Your task to perform on an android device: Clear the cart on newegg.com. Add razer blade to the cart on newegg.com Image 0: 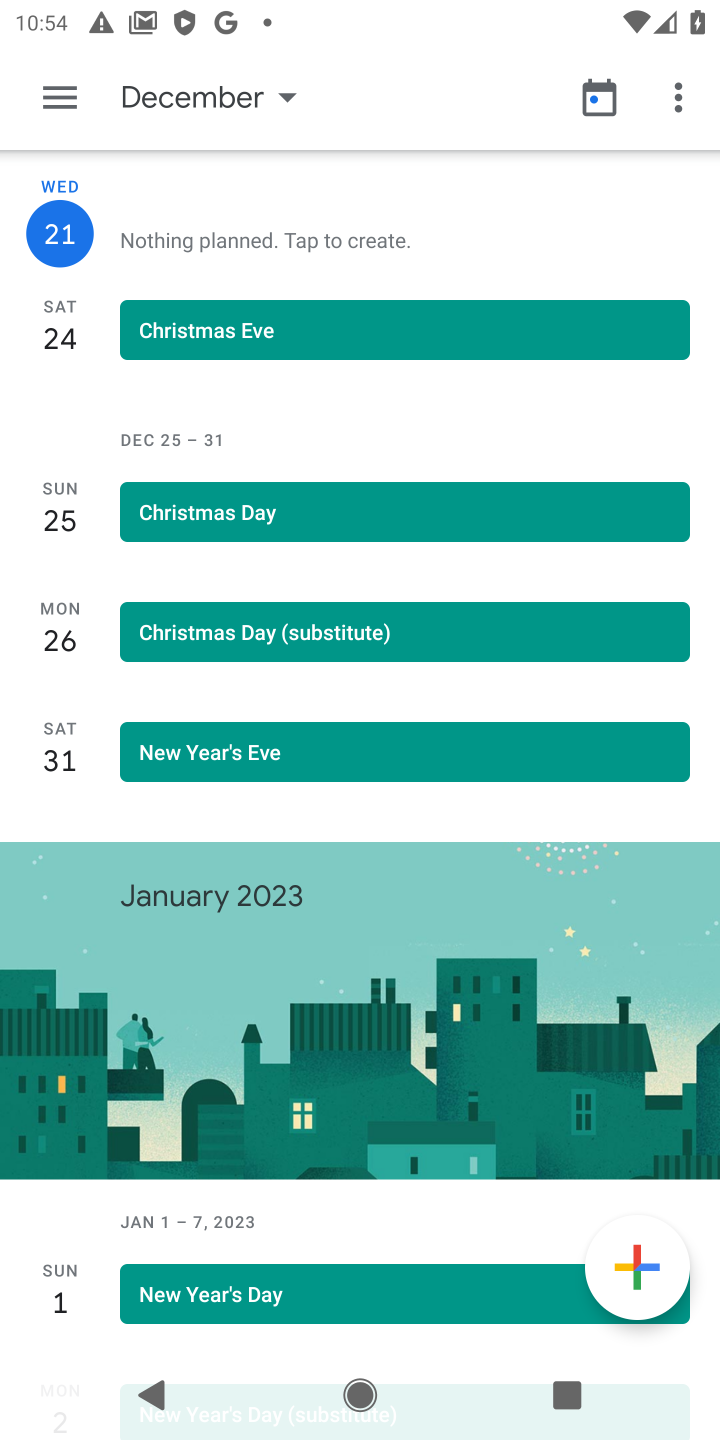
Step 0: press home button
Your task to perform on an android device: Clear the cart on newegg.com. Add razer blade to the cart on newegg.com Image 1: 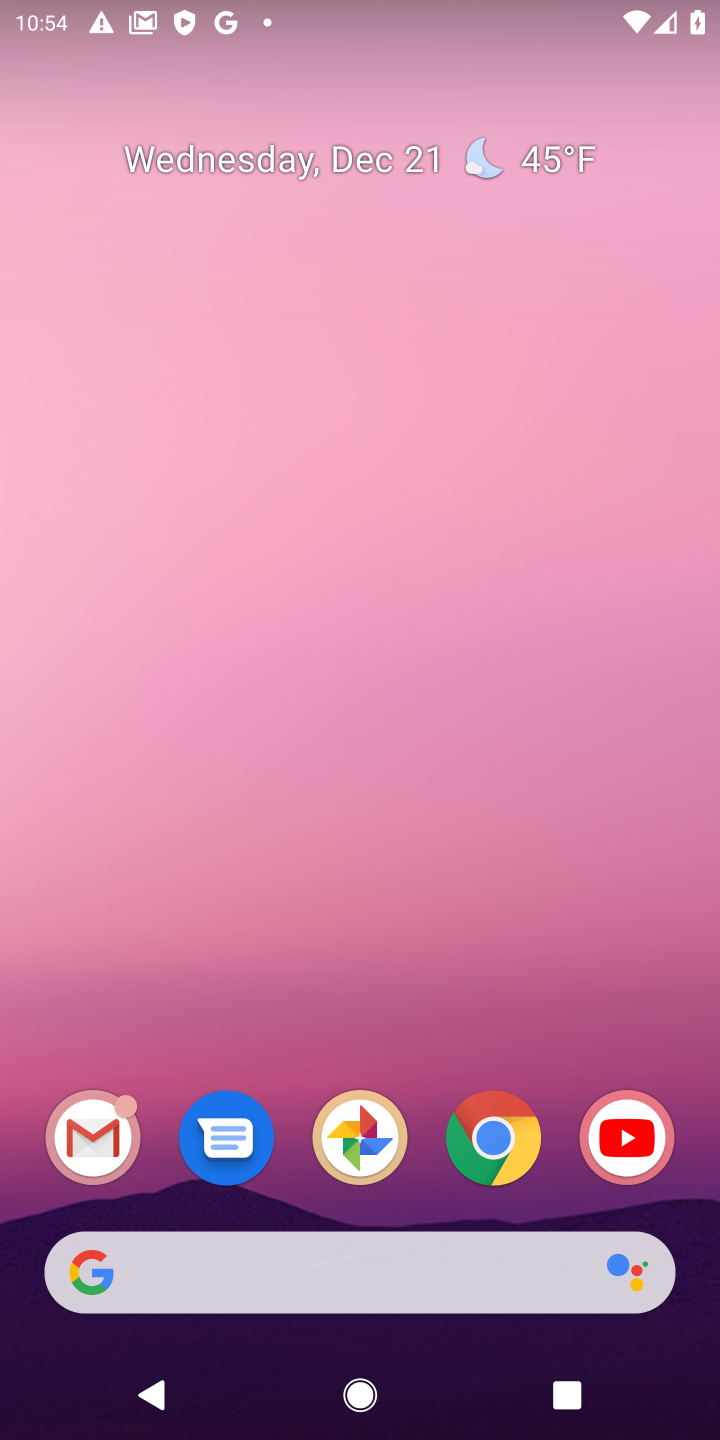
Step 1: click (496, 1151)
Your task to perform on an android device: Clear the cart on newegg.com. Add razer blade to the cart on newegg.com Image 2: 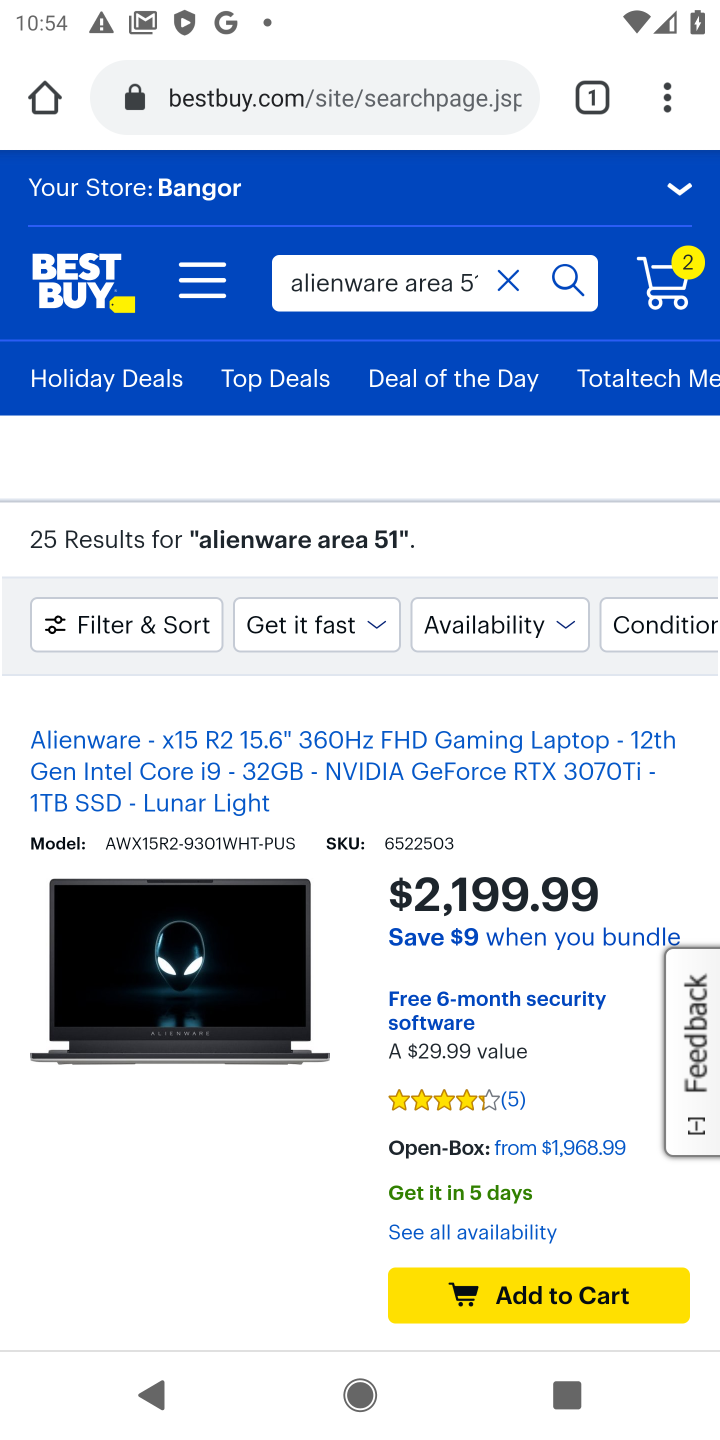
Step 2: click (279, 97)
Your task to perform on an android device: Clear the cart on newegg.com. Add razer blade to the cart on newegg.com Image 3: 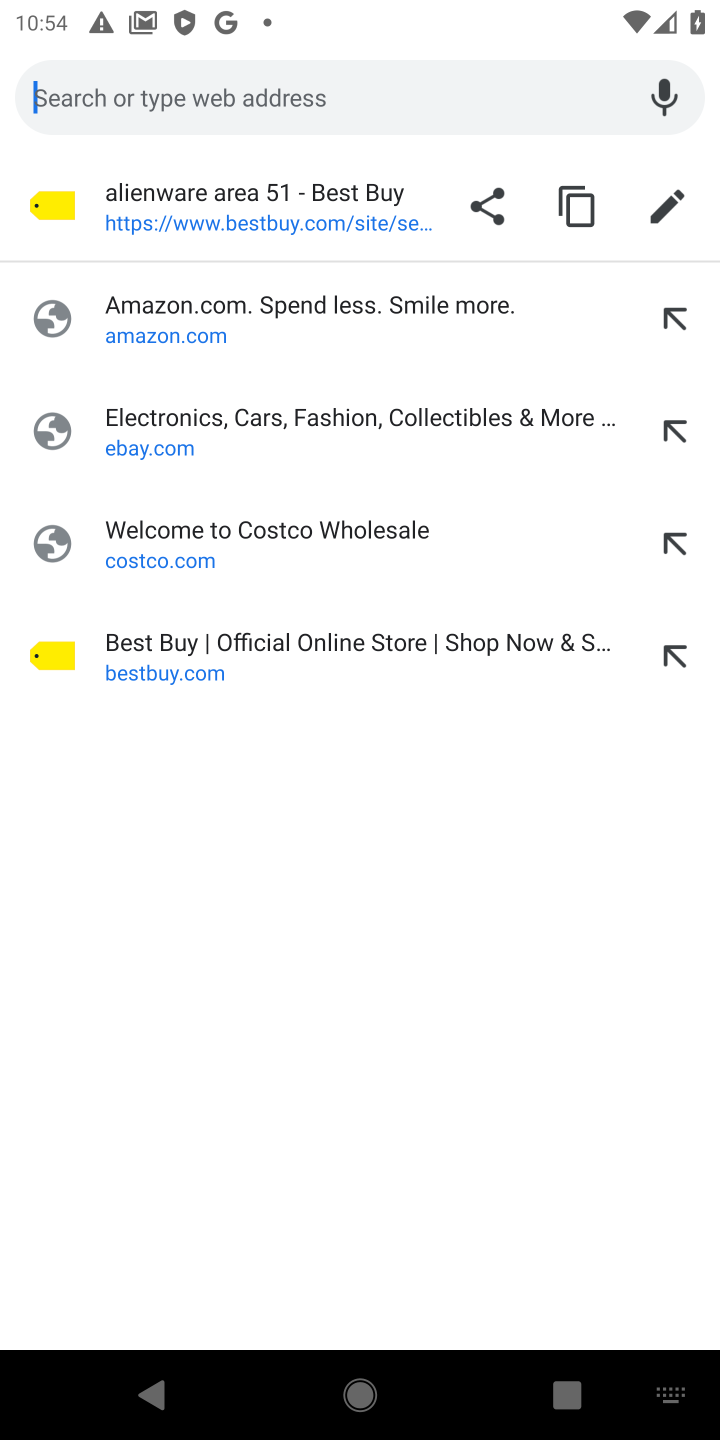
Step 3: type "newegg.com"
Your task to perform on an android device: Clear the cart on newegg.com. Add razer blade to the cart on newegg.com Image 4: 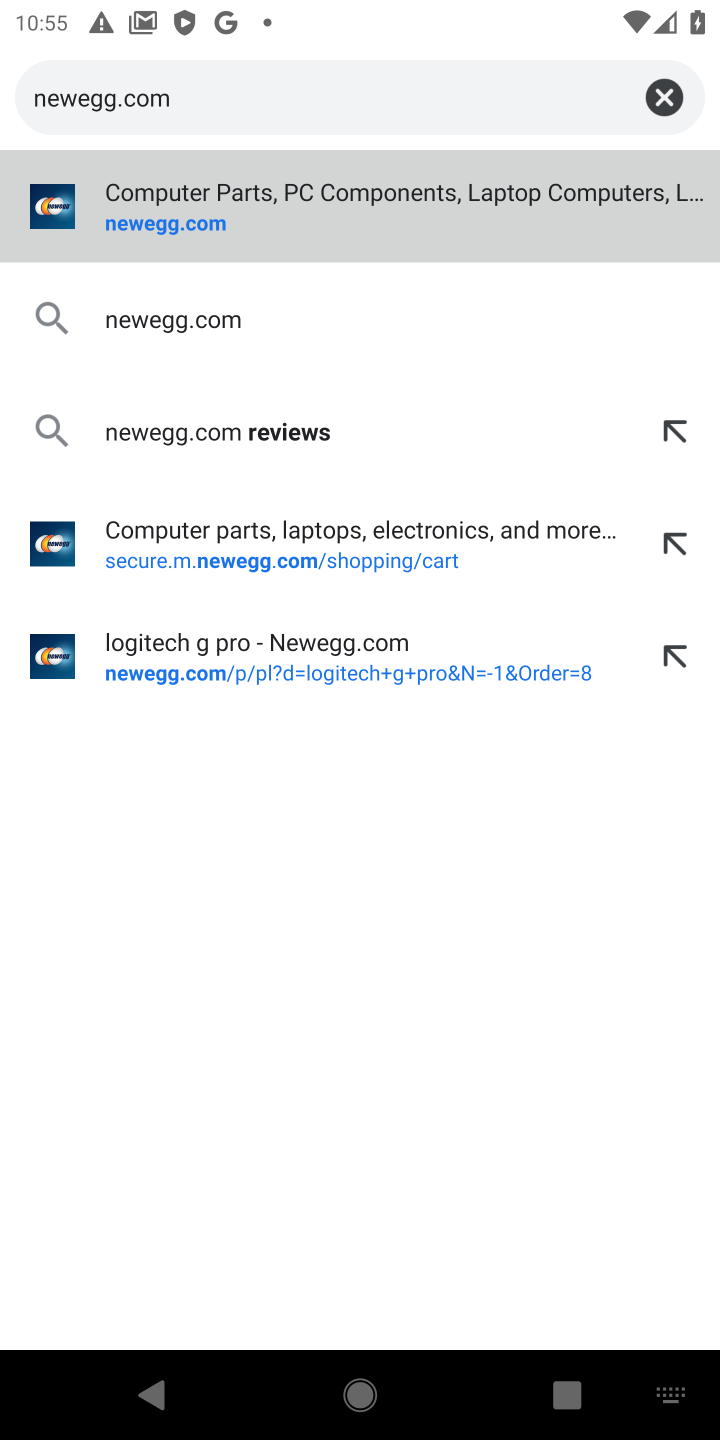
Step 4: click (142, 235)
Your task to perform on an android device: Clear the cart on newegg.com. Add razer blade to the cart on newegg.com Image 5: 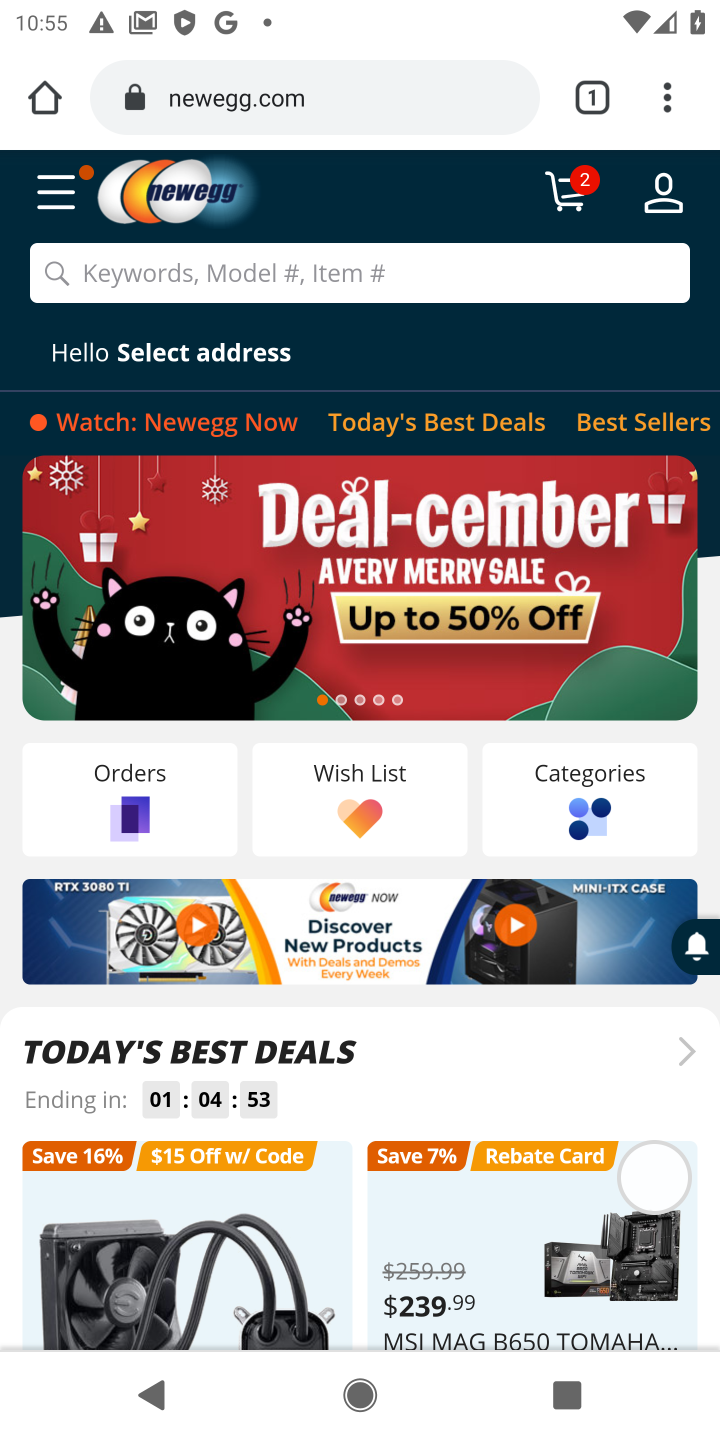
Step 5: click (577, 198)
Your task to perform on an android device: Clear the cart on newegg.com. Add razer blade to the cart on newegg.com Image 6: 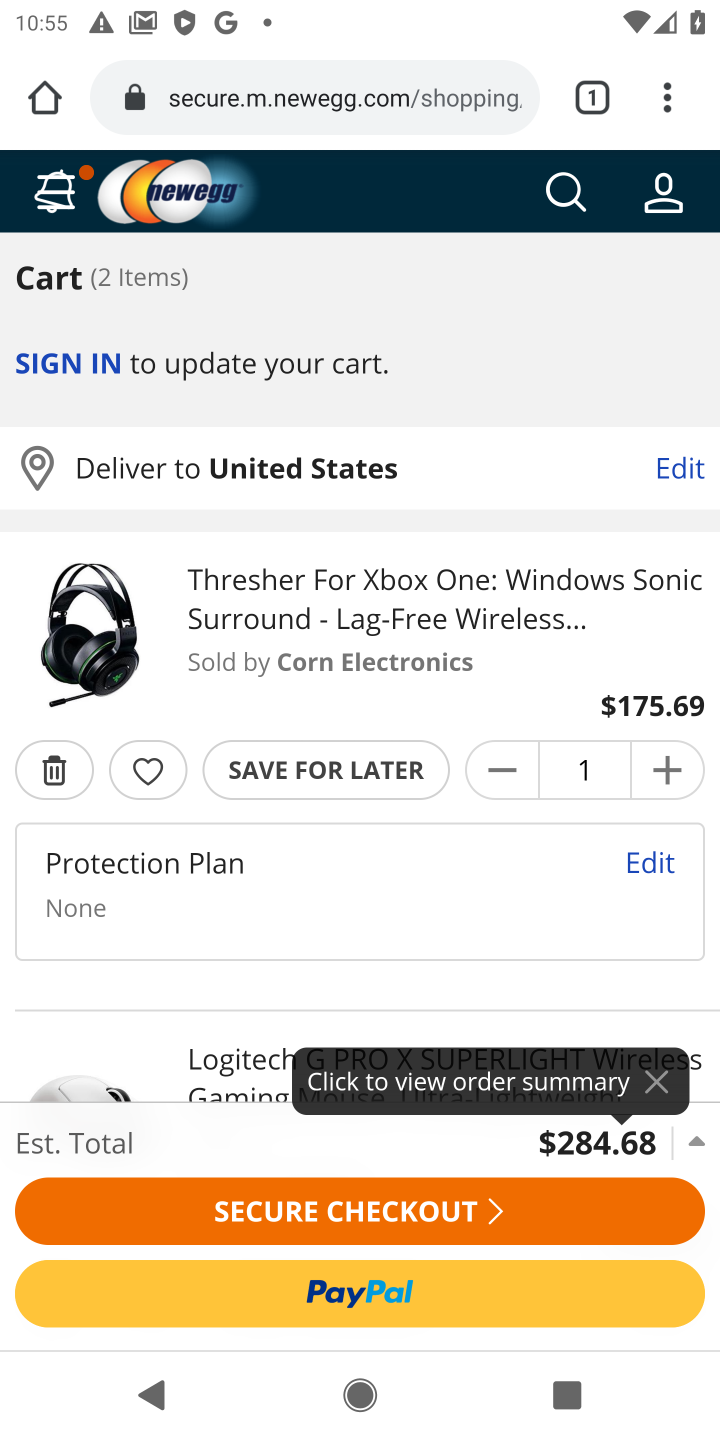
Step 6: click (50, 777)
Your task to perform on an android device: Clear the cart on newegg.com. Add razer blade to the cart on newegg.com Image 7: 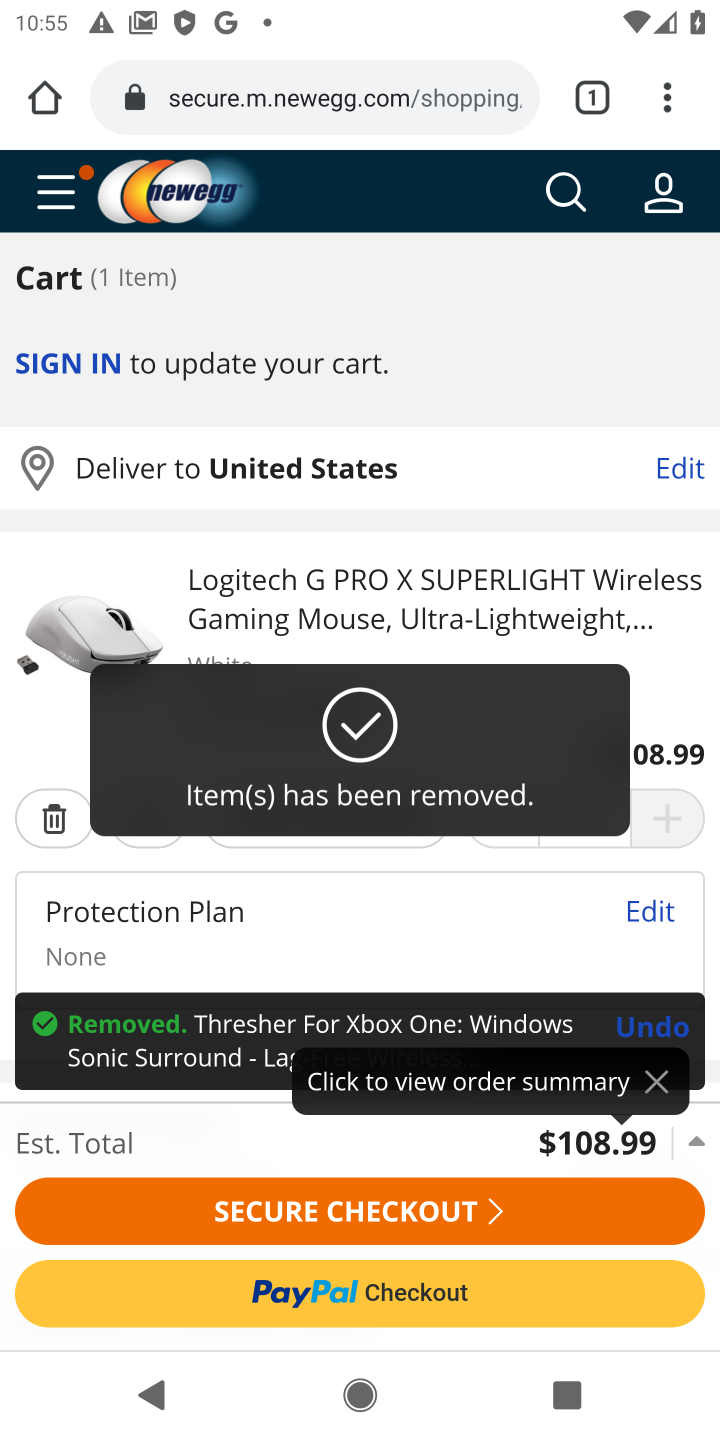
Step 7: click (61, 817)
Your task to perform on an android device: Clear the cart on newegg.com. Add razer blade to the cart on newegg.com Image 8: 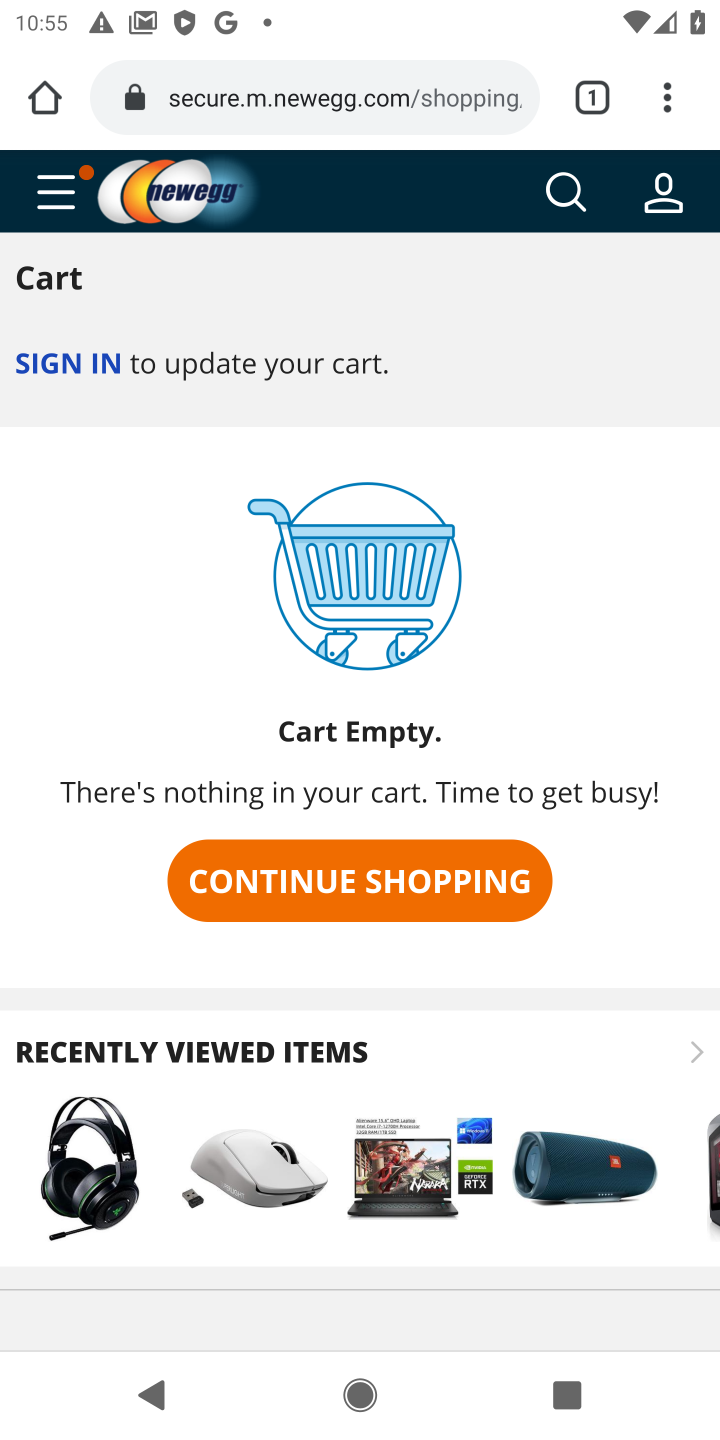
Step 8: click (575, 199)
Your task to perform on an android device: Clear the cart on newegg.com. Add razer blade to the cart on newegg.com Image 9: 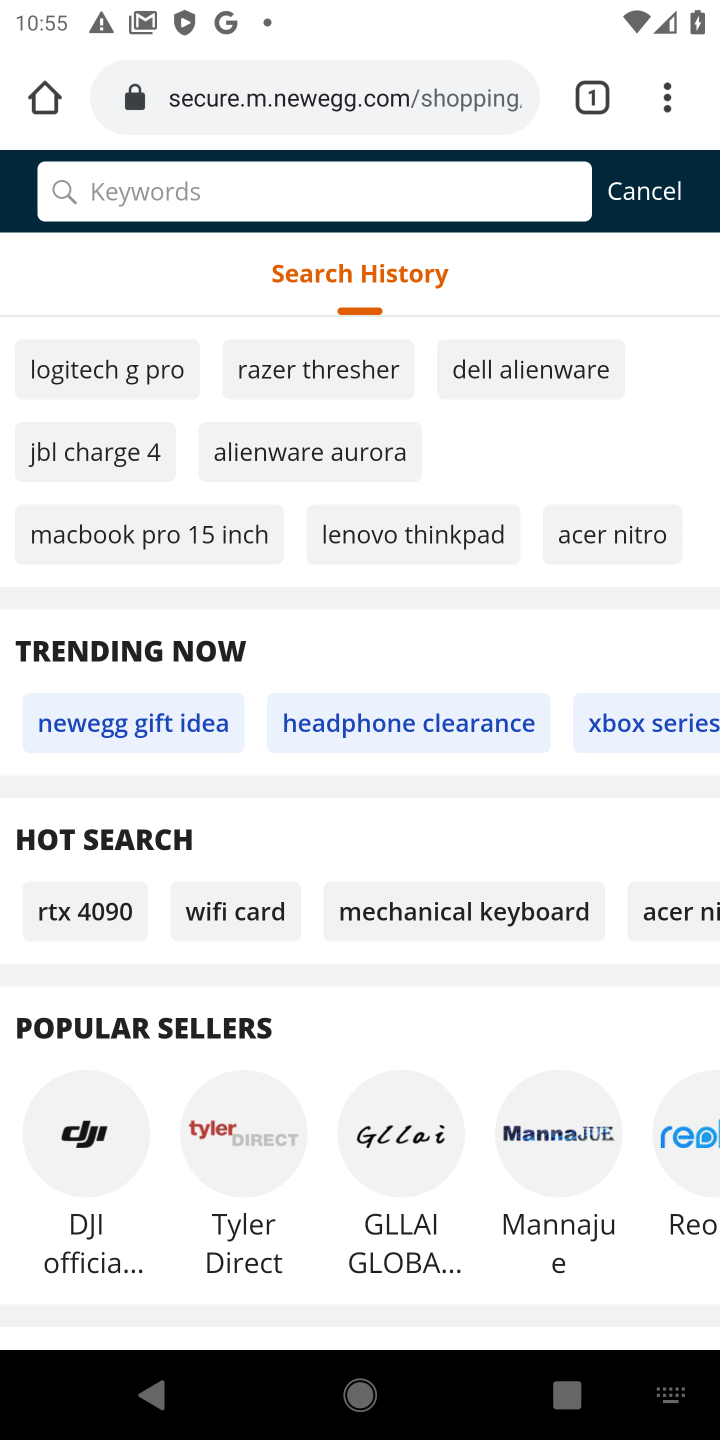
Step 9: type "razer blade"
Your task to perform on an android device: Clear the cart on newegg.com. Add razer blade to the cart on newegg.com Image 10: 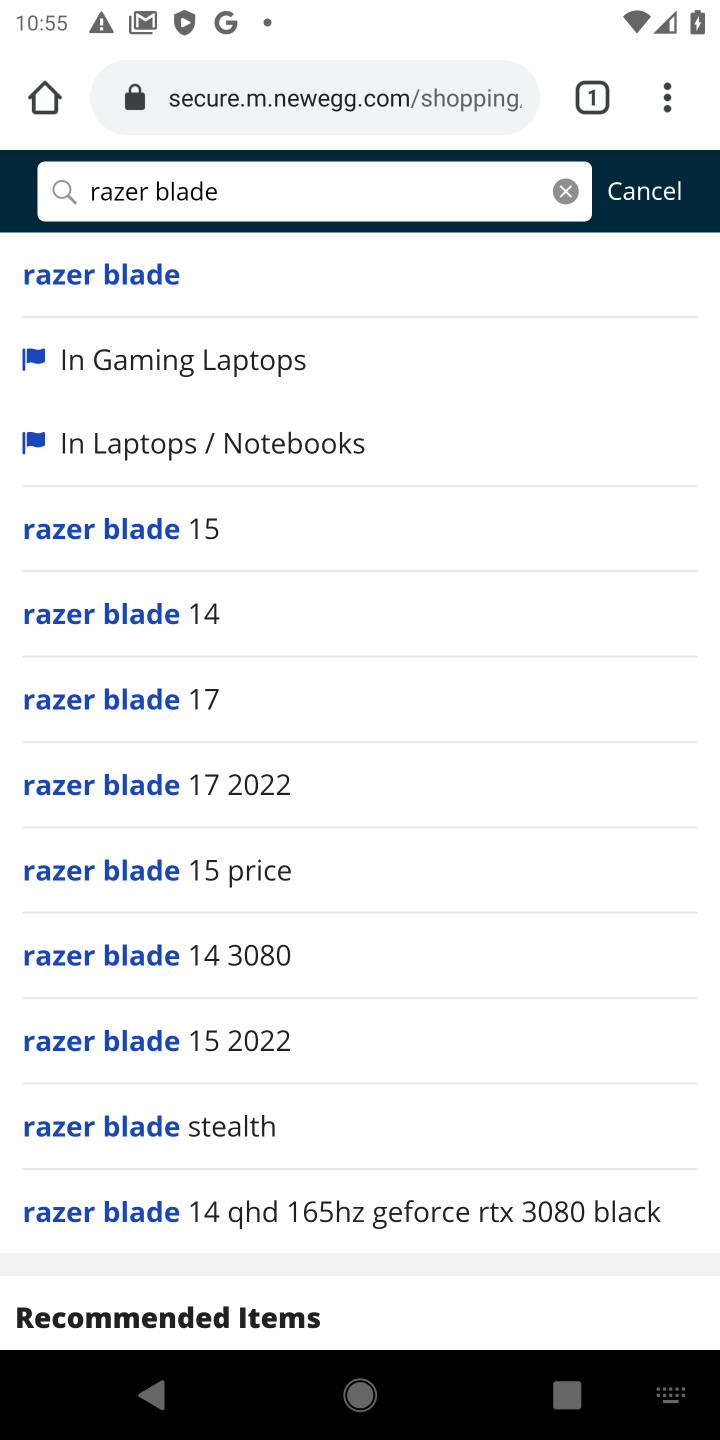
Step 10: click (88, 273)
Your task to perform on an android device: Clear the cart on newegg.com. Add razer blade to the cart on newegg.com Image 11: 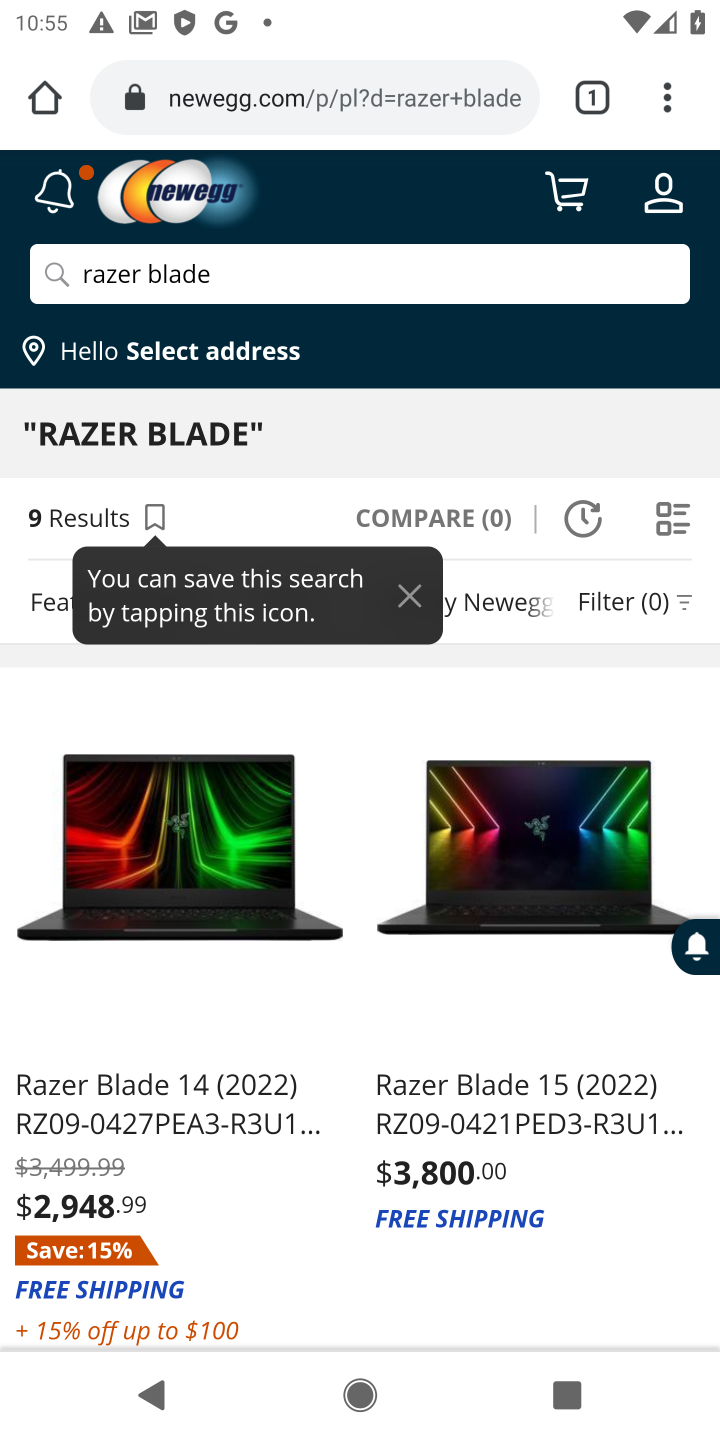
Step 11: click (111, 1100)
Your task to perform on an android device: Clear the cart on newegg.com. Add razer blade to the cart on newegg.com Image 12: 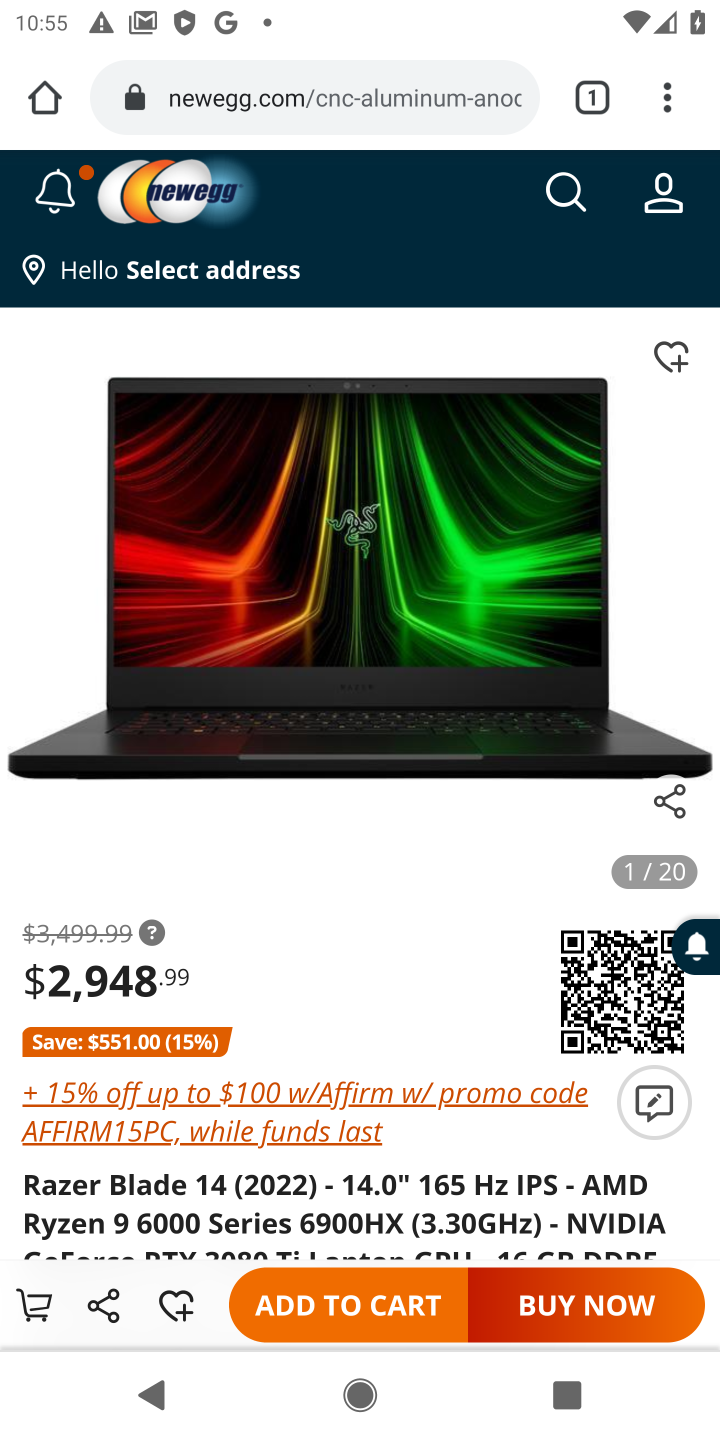
Step 12: click (324, 1297)
Your task to perform on an android device: Clear the cart on newegg.com. Add razer blade to the cart on newegg.com Image 13: 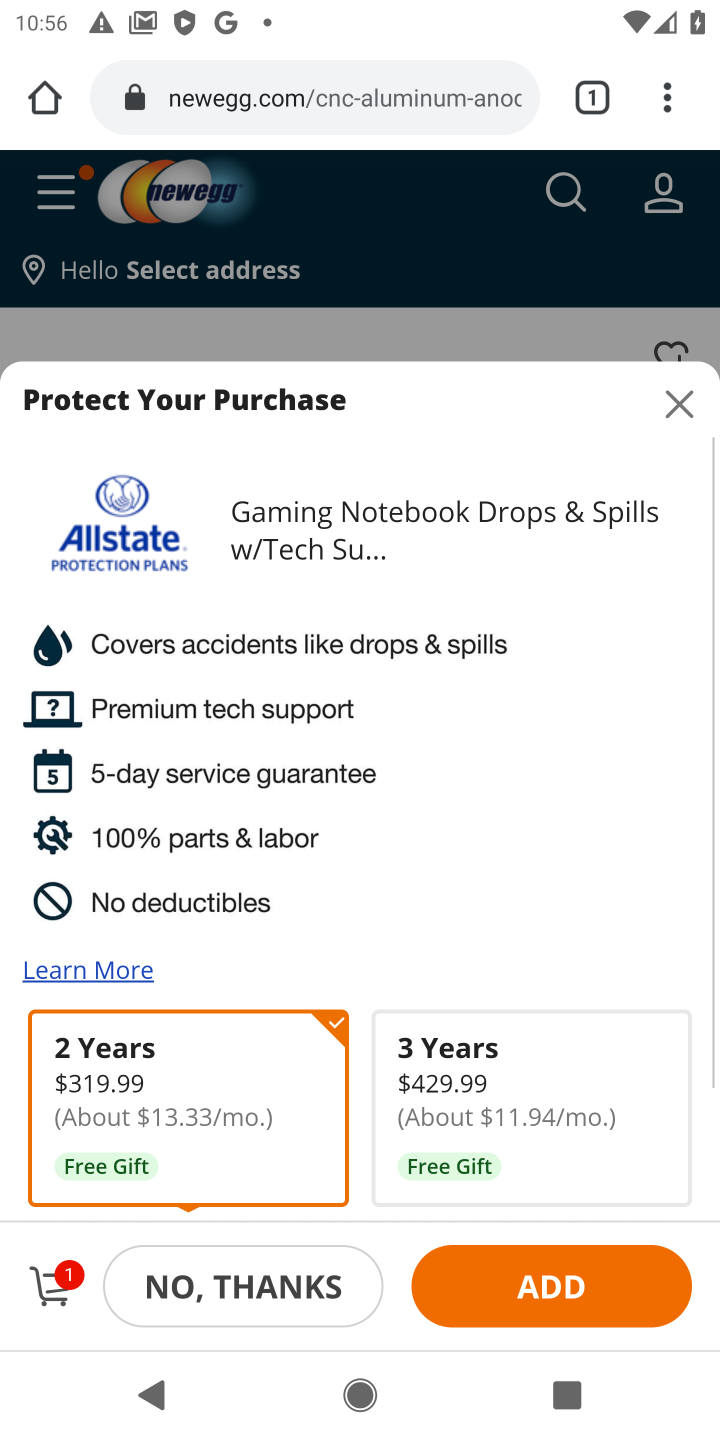
Step 13: task complete